Your task to perform on an android device: move a message to another label in the gmail app Image 0: 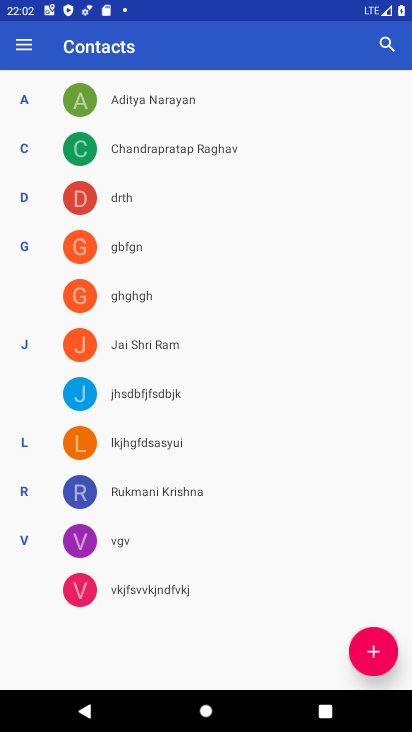
Step 0: press back button
Your task to perform on an android device: move a message to another label in the gmail app Image 1: 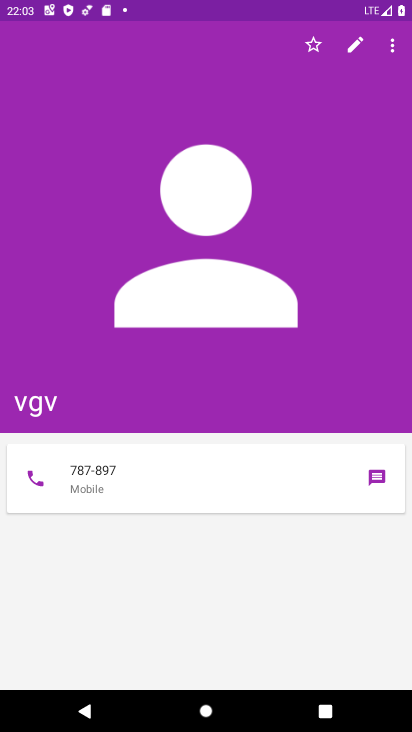
Step 1: press back button
Your task to perform on an android device: move a message to another label in the gmail app Image 2: 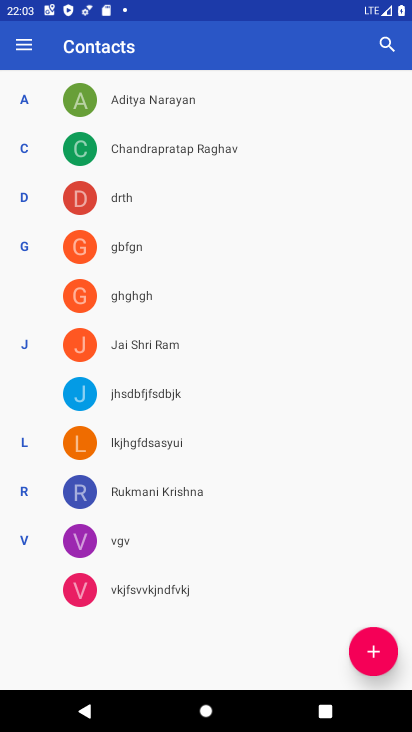
Step 2: press back button
Your task to perform on an android device: move a message to another label in the gmail app Image 3: 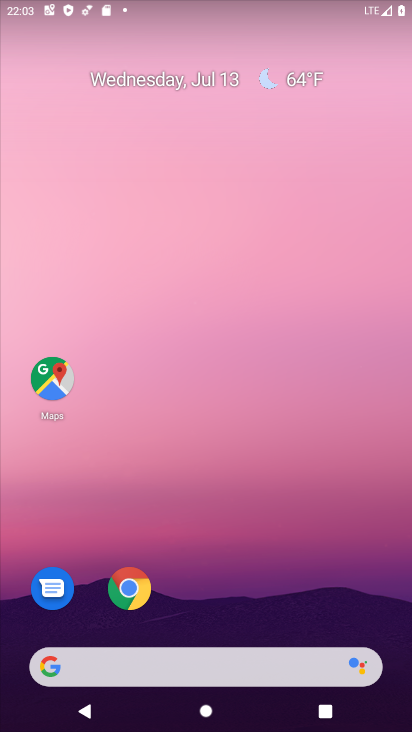
Step 3: drag from (221, 599) to (335, 7)
Your task to perform on an android device: move a message to another label in the gmail app Image 4: 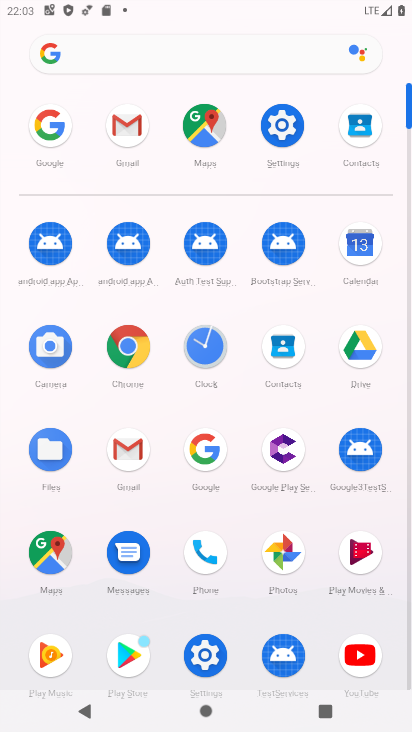
Step 4: click (124, 116)
Your task to perform on an android device: move a message to another label in the gmail app Image 5: 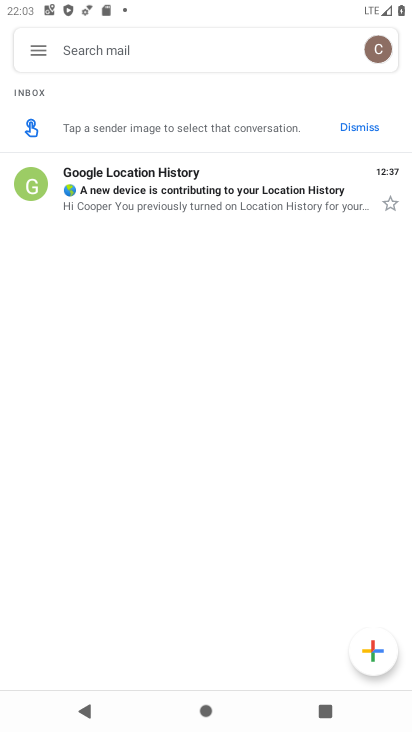
Step 5: click (141, 171)
Your task to perform on an android device: move a message to another label in the gmail app Image 6: 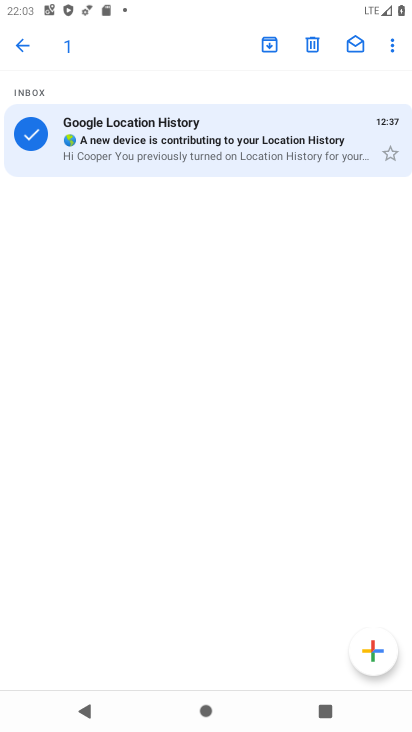
Step 6: click (394, 38)
Your task to perform on an android device: move a message to another label in the gmail app Image 7: 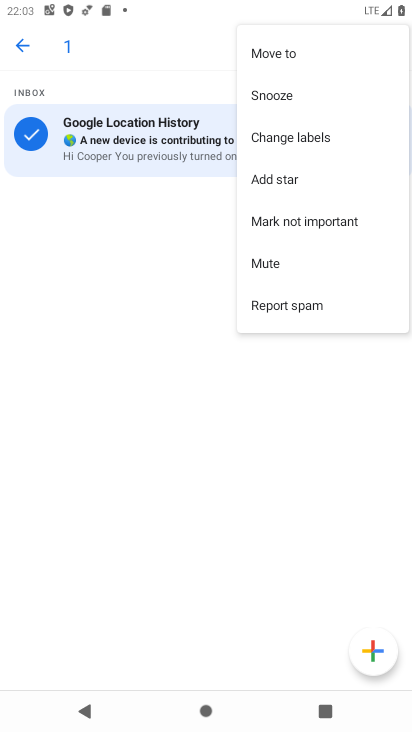
Step 7: click (300, 137)
Your task to perform on an android device: move a message to another label in the gmail app Image 8: 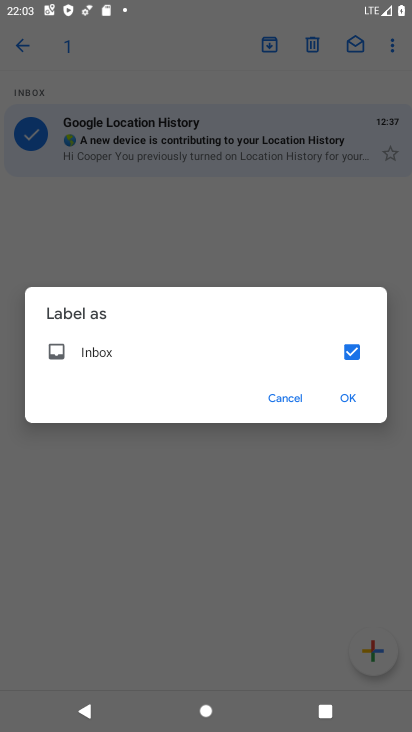
Step 8: click (345, 404)
Your task to perform on an android device: move a message to another label in the gmail app Image 9: 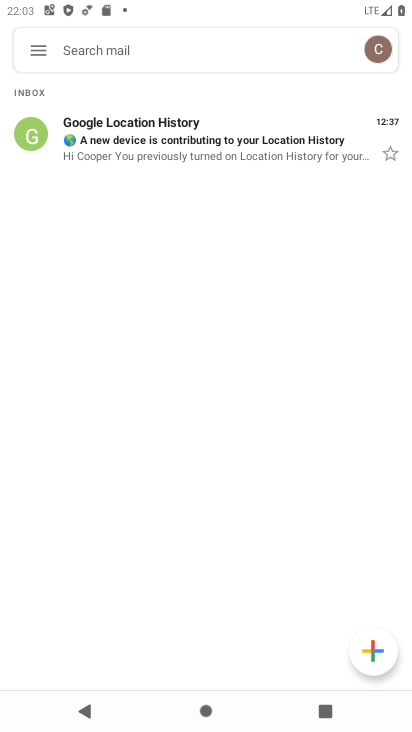
Step 9: task complete